Your task to perform on an android device: toggle airplane mode Image 0: 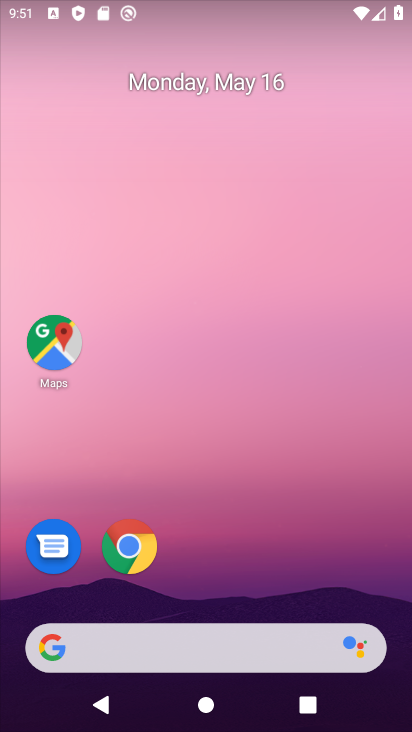
Step 0: drag from (286, 16) to (338, 587)
Your task to perform on an android device: toggle airplane mode Image 1: 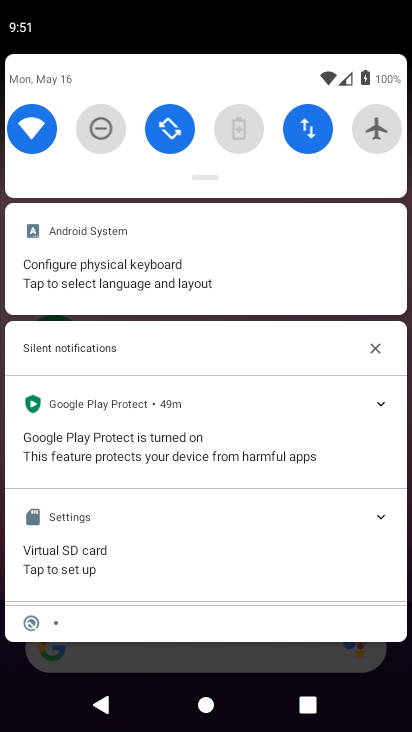
Step 1: click (394, 130)
Your task to perform on an android device: toggle airplane mode Image 2: 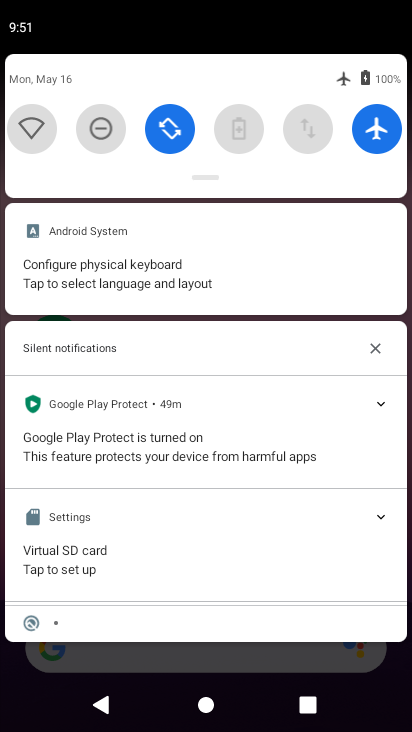
Step 2: click (394, 130)
Your task to perform on an android device: toggle airplane mode Image 3: 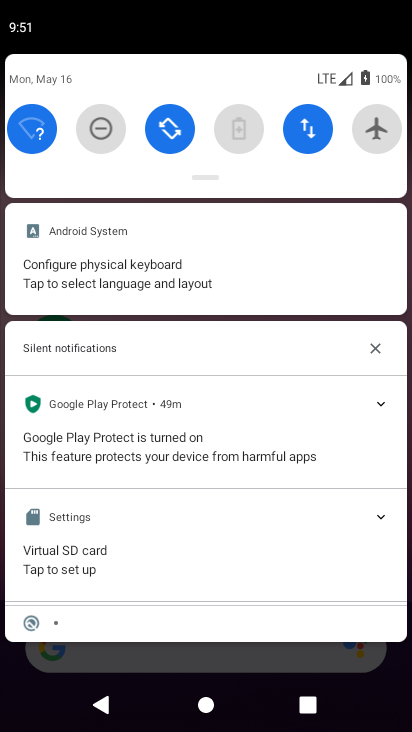
Step 3: task complete